Your task to perform on an android device: change the clock display to analog Image 0: 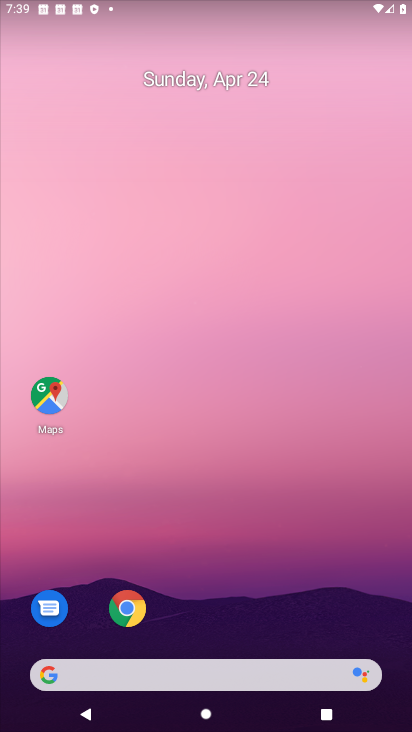
Step 0: drag from (230, 631) to (224, 186)
Your task to perform on an android device: change the clock display to analog Image 1: 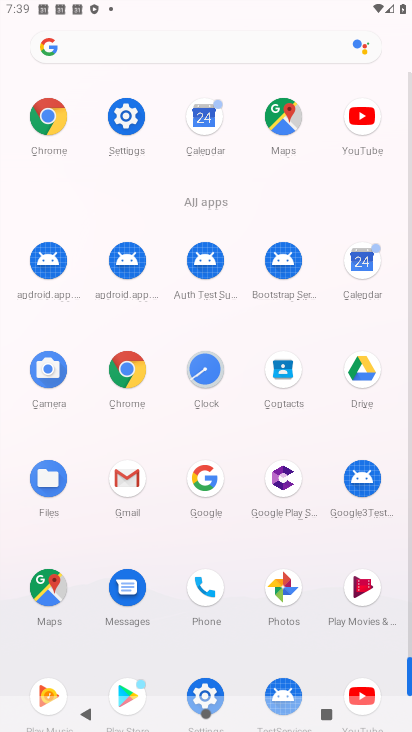
Step 1: click (198, 373)
Your task to perform on an android device: change the clock display to analog Image 2: 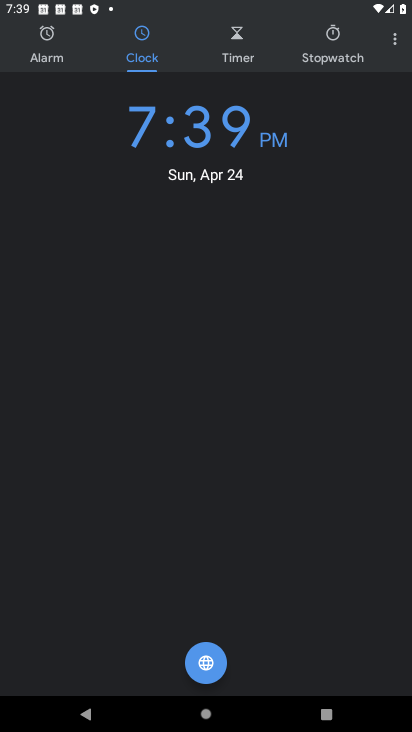
Step 2: click (400, 35)
Your task to perform on an android device: change the clock display to analog Image 3: 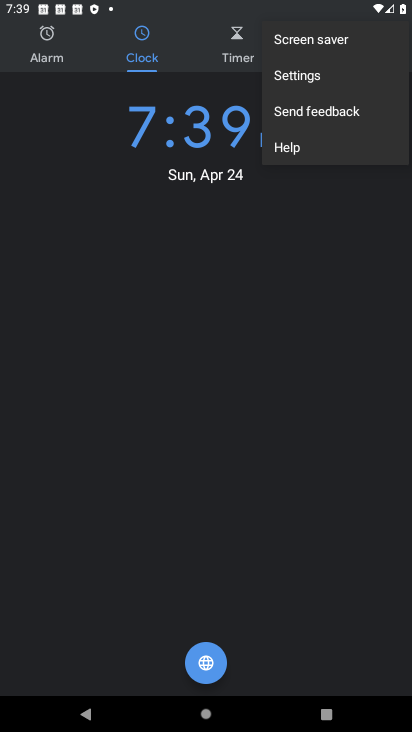
Step 3: click (343, 84)
Your task to perform on an android device: change the clock display to analog Image 4: 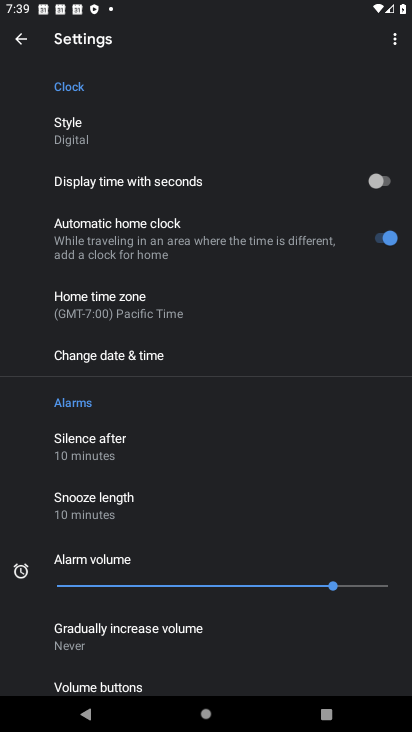
Step 4: click (83, 141)
Your task to perform on an android device: change the clock display to analog Image 5: 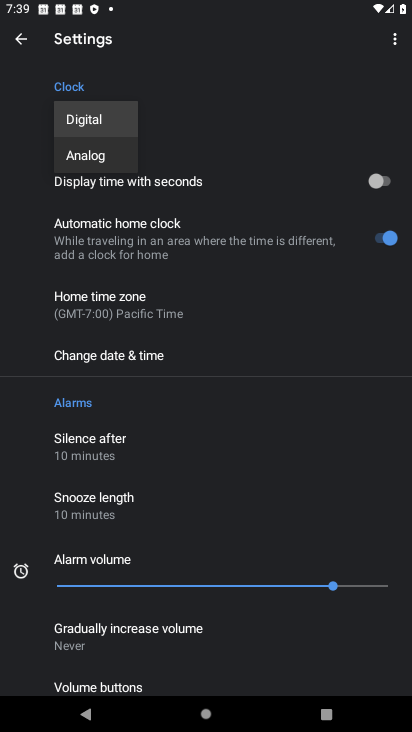
Step 5: click (92, 162)
Your task to perform on an android device: change the clock display to analog Image 6: 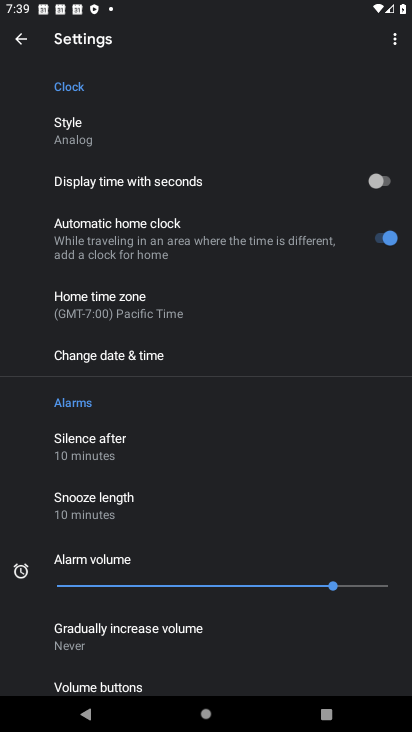
Step 6: task complete